Your task to perform on an android device: turn off sleep mode Image 0: 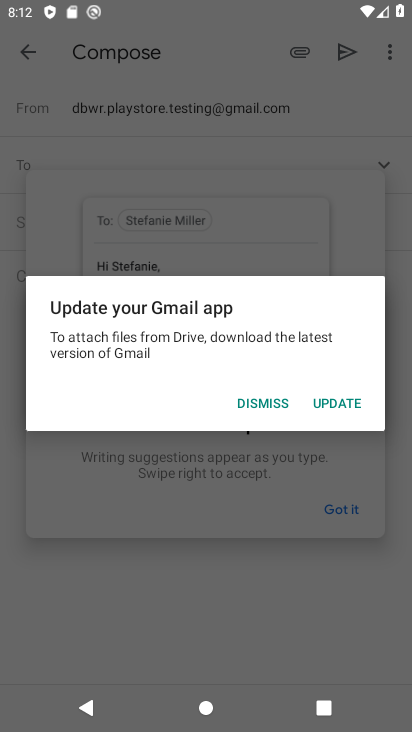
Step 0: press home button
Your task to perform on an android device: turn off sleep mode Image 1: 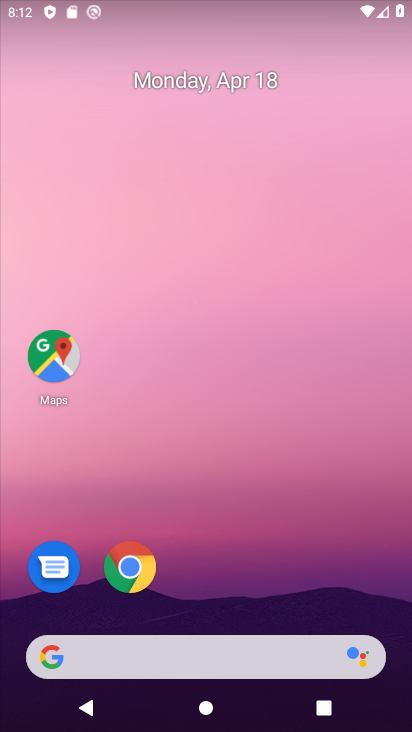
Step 1: drag from (267, 530) to (238, 34)
Your task to perform on an android device: turn off sleep mode Image 2: 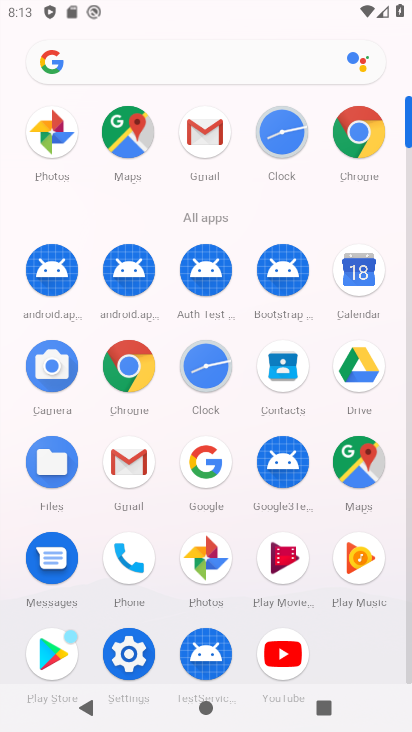
Step 2: click (132, 653)
Your task to perform on an android device: turn off sleep mode Image 3: 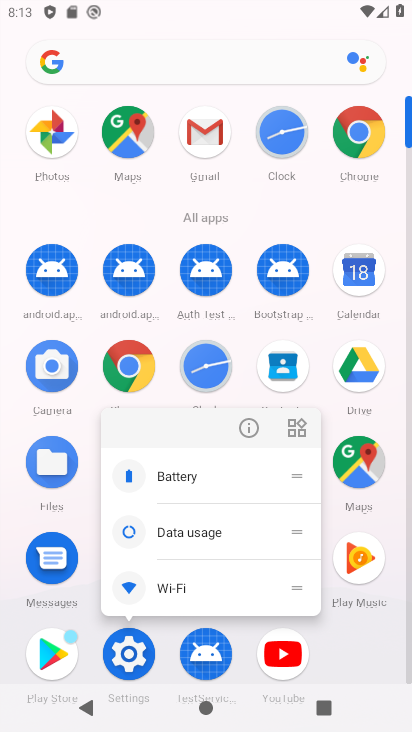
Step 3: click (136, 657)
Your task to perform on an android device: turn off sleep mode Image 4: 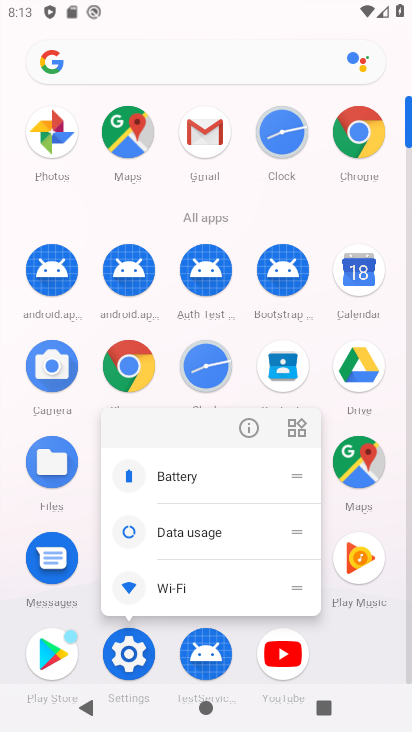
Step 4: click (139, 649)
Your task to perform on an android device: turn off sleep mode Image 5: 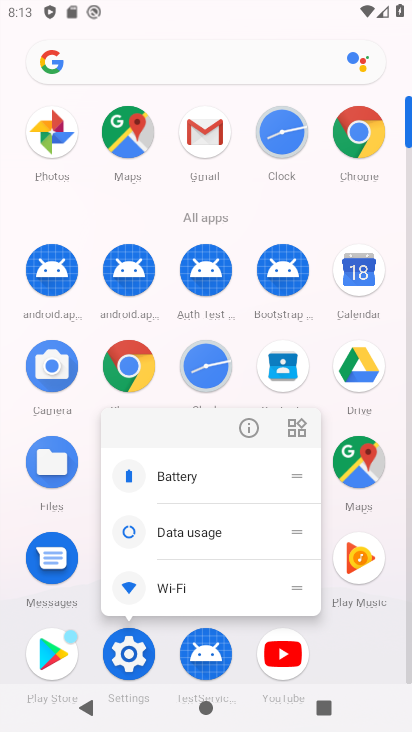
Step 5: click (135, 654)
Your task to perform on an android device: turn off sleep mode Image 6: 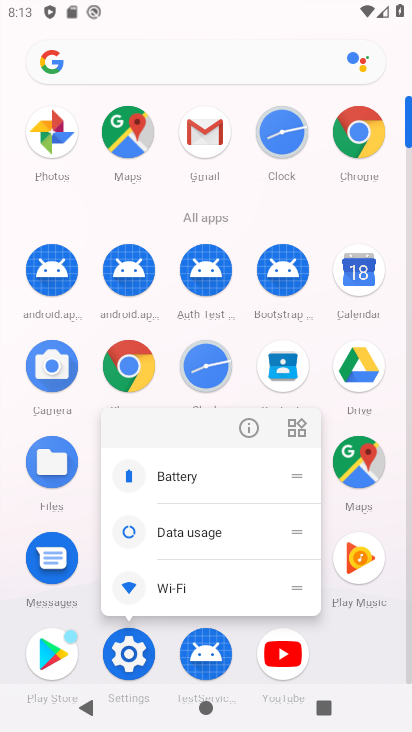
Step 6: click (98, 660)
Your task to perform on an android device: turn off sleep mode Image 7: 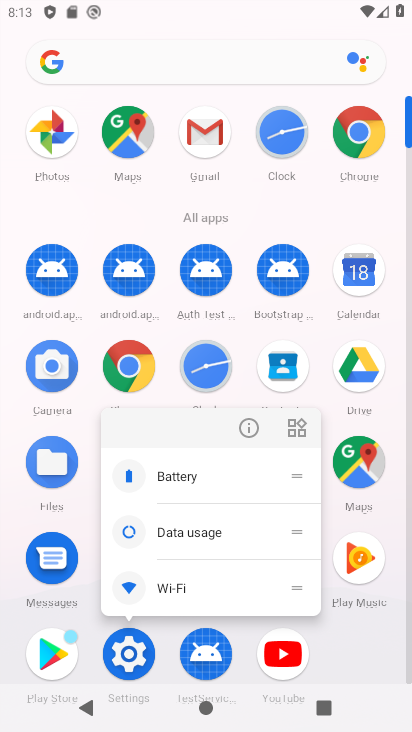
Step 7: click (120, 655)
Your task to perform on an android device: turn off sleep mode Image 8: 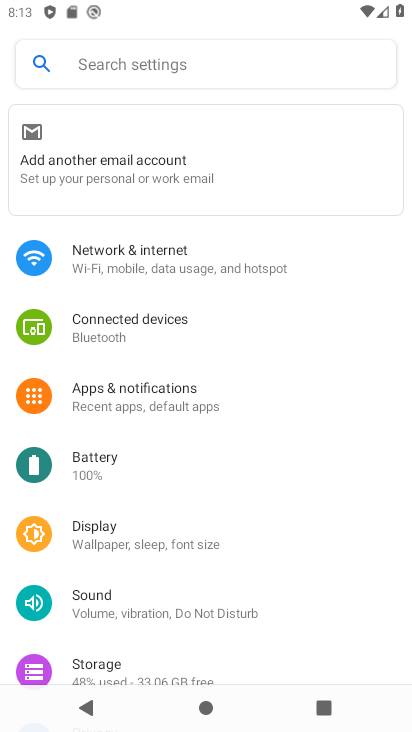
Step 8: click (187, 541)
Your task to perform on an android device: turn off sleep mode Image 9: 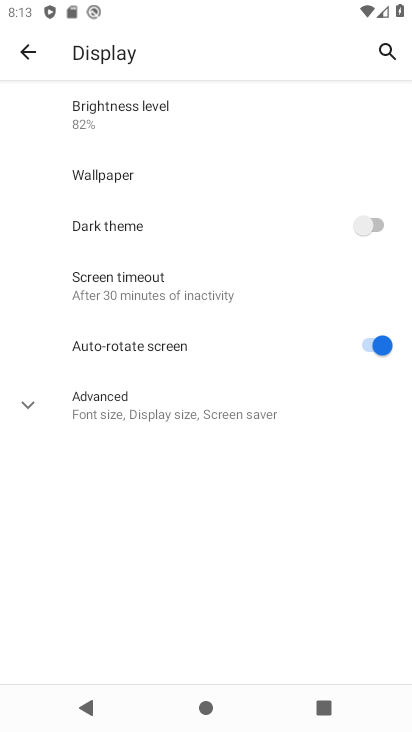
Step 9: click (195, 413)
Your task to perform on an android device: turn off sleep mode Image 10: 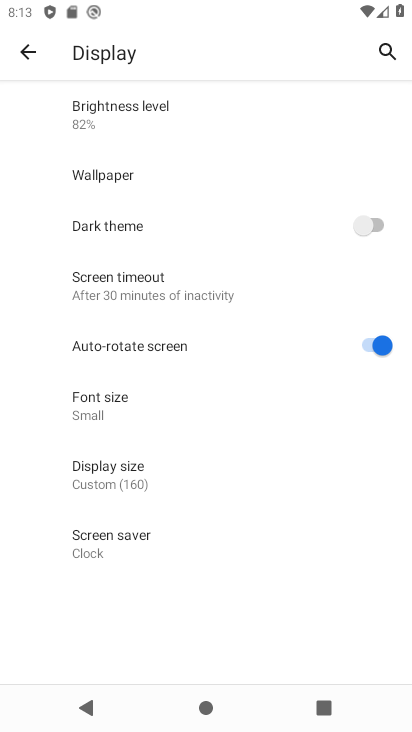
Step 10: task complete